Your task to perform on an android device: Check the weather Image 0: 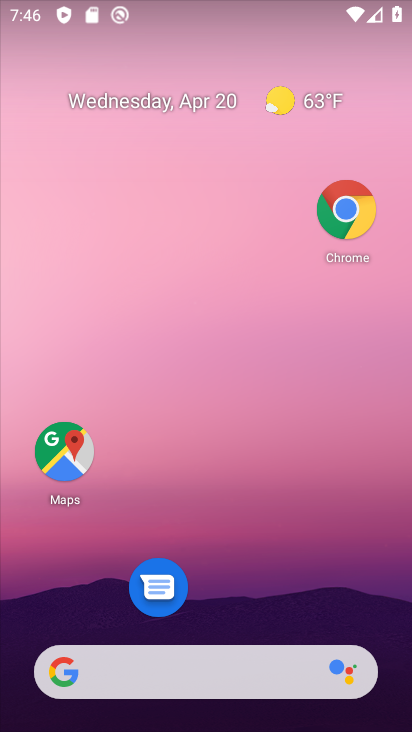
Step 0: click (335, 97)
Your task to perform on an android device: Check the weather Image 1: 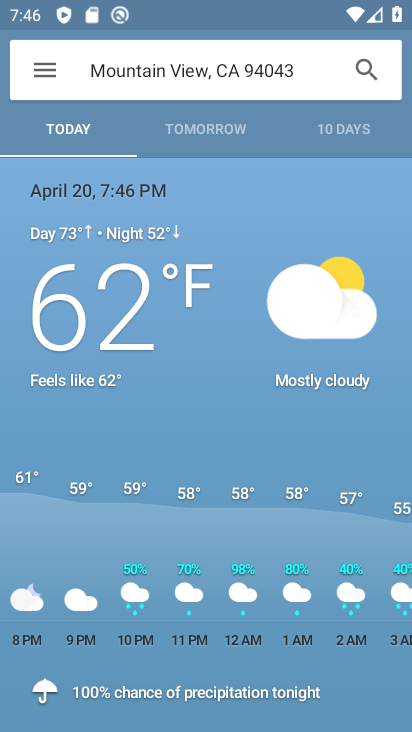
Step 1: task complete